Your task to perform on an android device: Open Google Maps and go to "Timeline" Image 0: 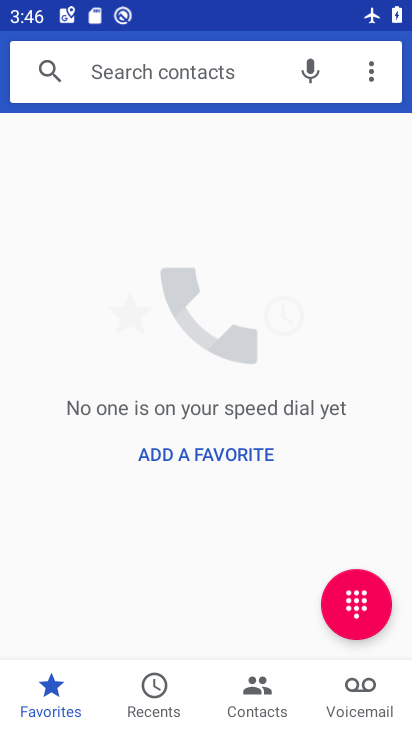
Step 0: press home button
Your task to perform on an android device: Open Google Maps and go to "Timeline" Image 1: 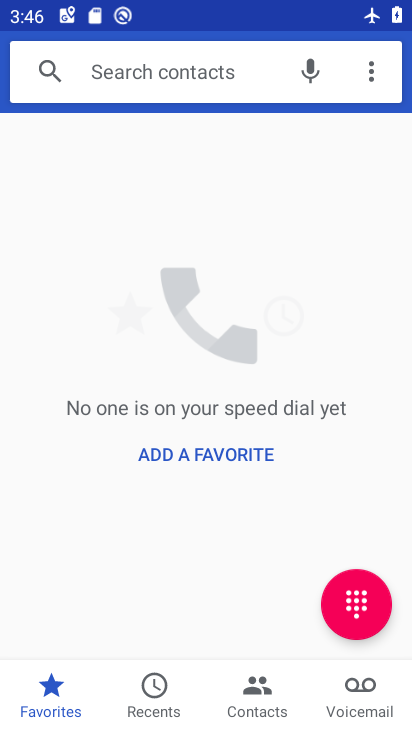
Step 1: press home button
Your task to perform on an android device: Open Google Maps and go to "Timeline" Image 2: 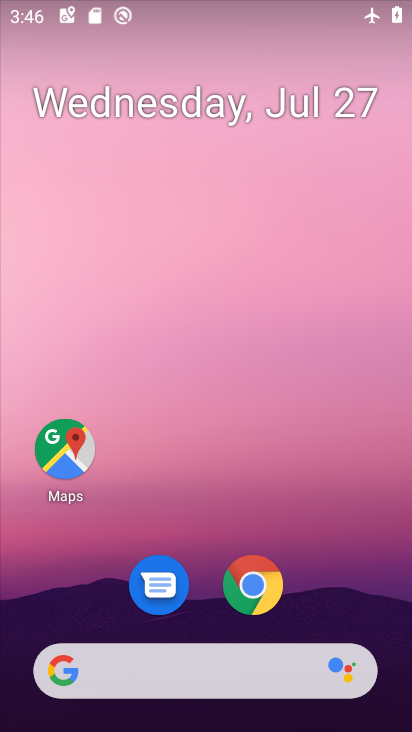
Step 2: click (70, 449)
Your task to perform on an android device: Open Google Maps and go to "Timeline" Image 3: 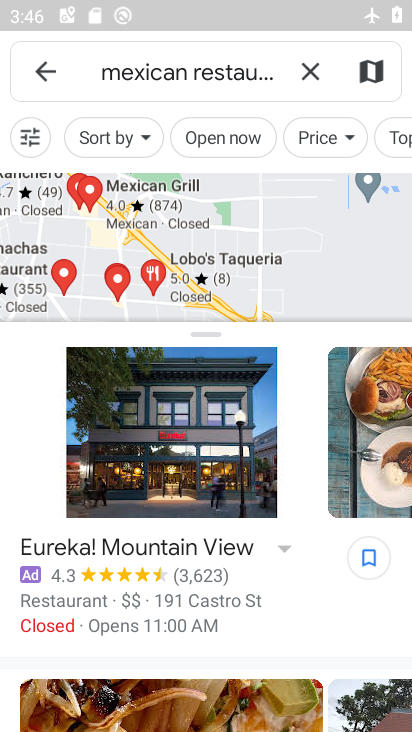
Step 3: click (310, 68)
Your task to perform on an android device: Open Google Maps and go to "Timeline" Image 4: 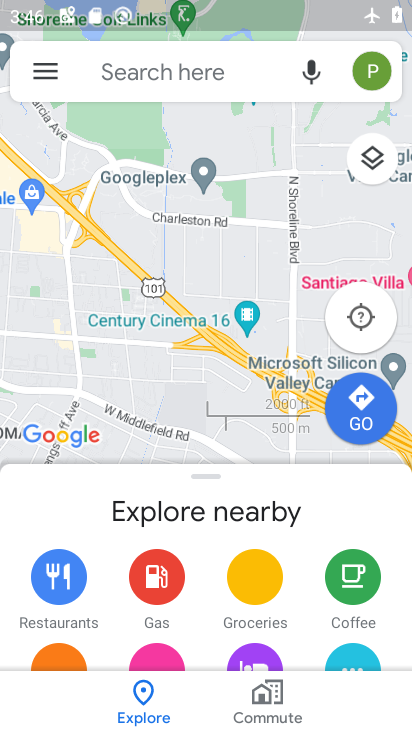
Step 4: click (41, 72)
Your task to perform on an android device: Open Google Maps and go to "Timeline" Image 5: 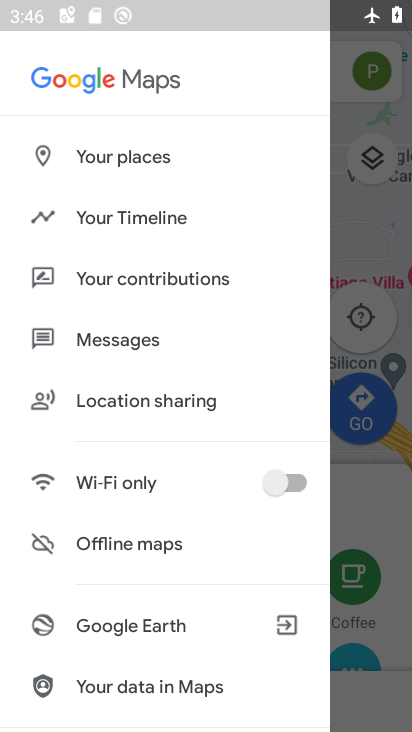
Step 5: click (127, 214)
Your task to perform on an android device: Open Google Maps and go to "Timeline" Image 6: 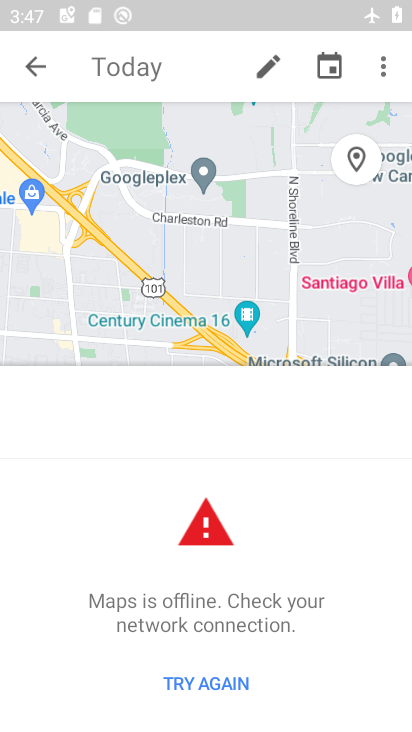
Step 6: task complete